Your task to perform on an android device: Go to internet settings Image 0: 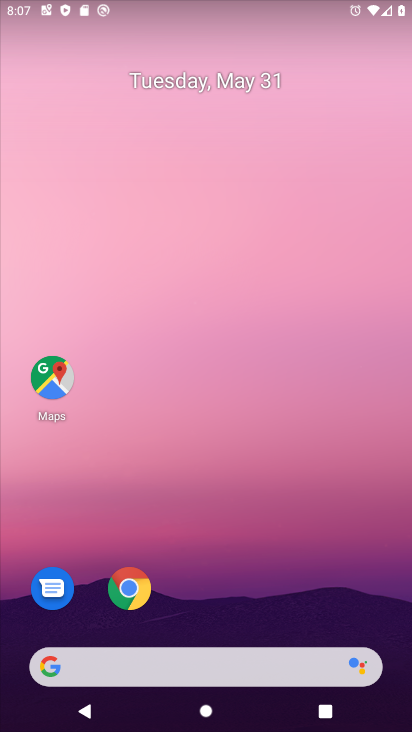
Step 0: drag from (237, 584) to (253, 4)
Your task to perform on an android device: Go to internet settings Image 1: 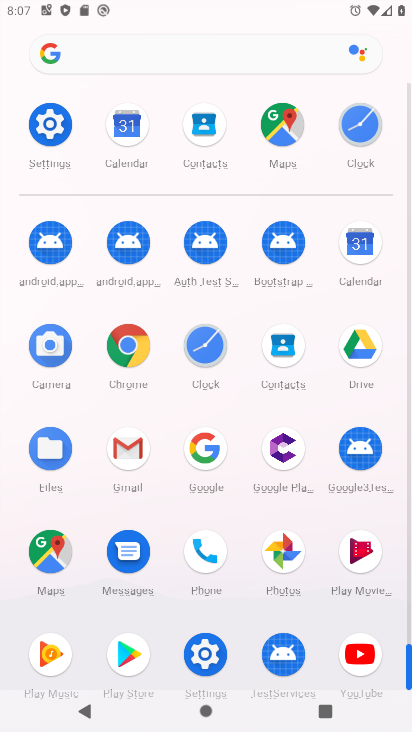
Step 1: click (52, 120)
Your task to perform on an android device: Go to internet settings Image 2: 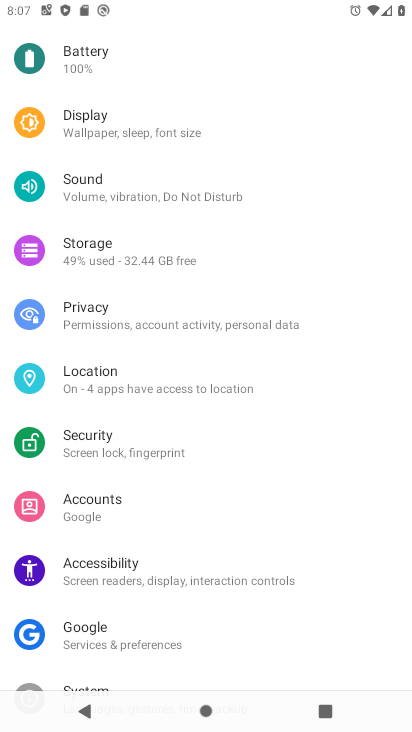
Step 2: drag from (230, 241) to (242, 642)
Your task to perform on an android device: Go to internet settings Image 3: 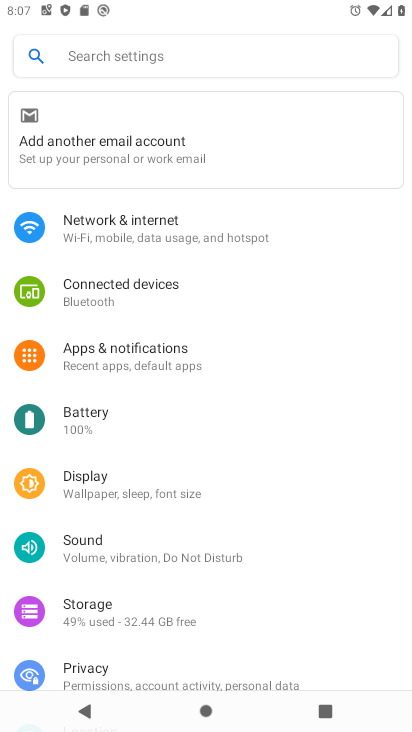
Step 3: click (180, 228)
Your task to perform on an android device: Go to internet settings Image 4: 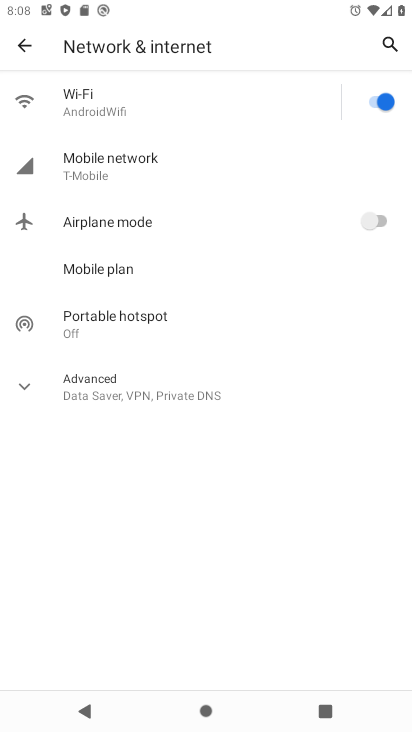
Step 4: task complete